Your task to perform on an android device: add a label to a message in the gmail app Image 0: 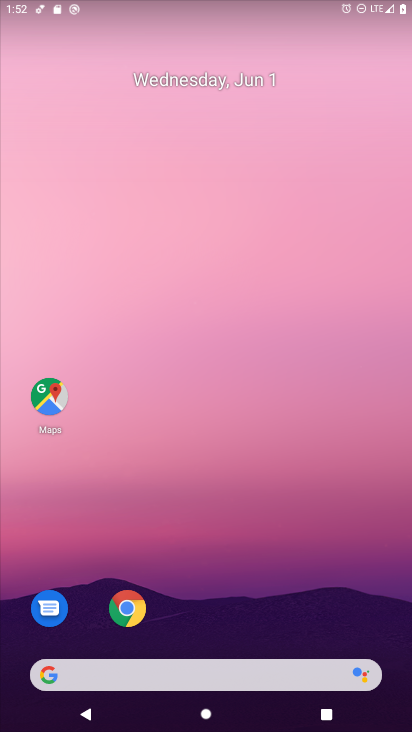
Step 0: drag from (179, 644) to (217, 152)
Your task to perform on an android device: add a label to a message in the gmail app Image 1: 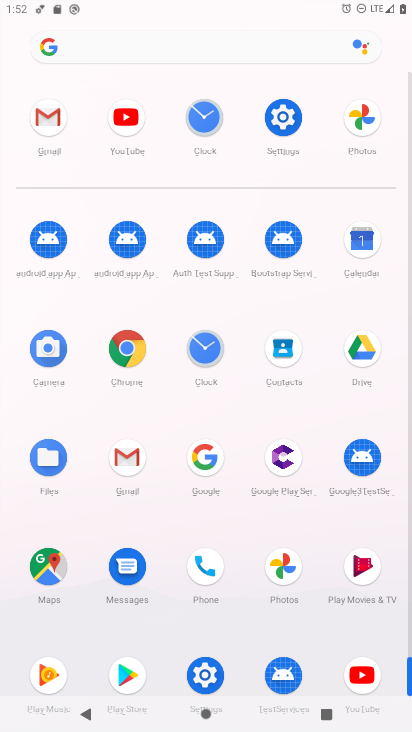
Step 1: click (113, 457)
Your task to perform on an android device: add a label to a message in the gmail app Image 2: 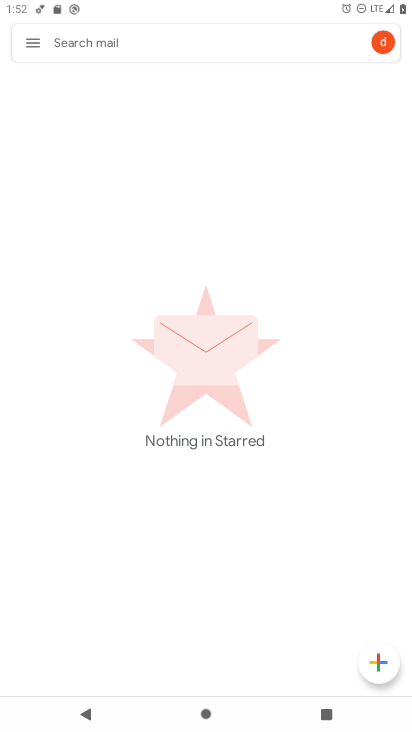
Step 2: press home button
Your task to perform on an android device: add a label to a message in the gmail app Image 3: 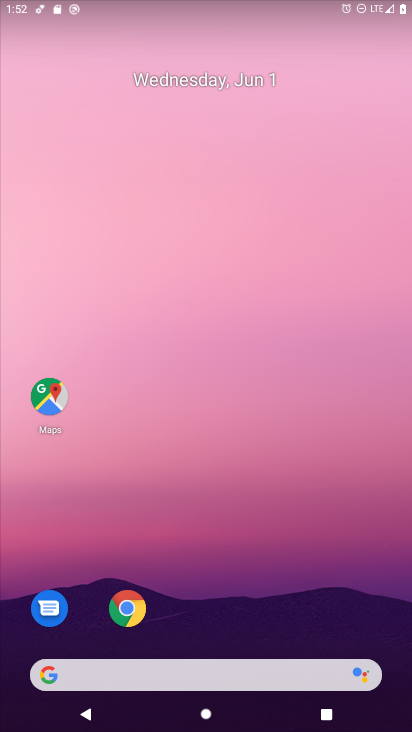
Step 3: drag from (206, 630) to (190, 87)
Your task to perform on an android device: add a label to a message in the gmail app Image 4: 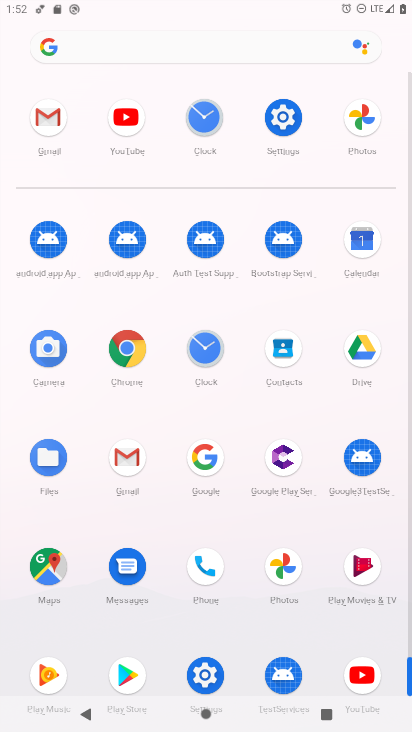
Step 4: click (43, 124)
Your task to perform on an android device: add a label to a message in the gmail app Image 5: 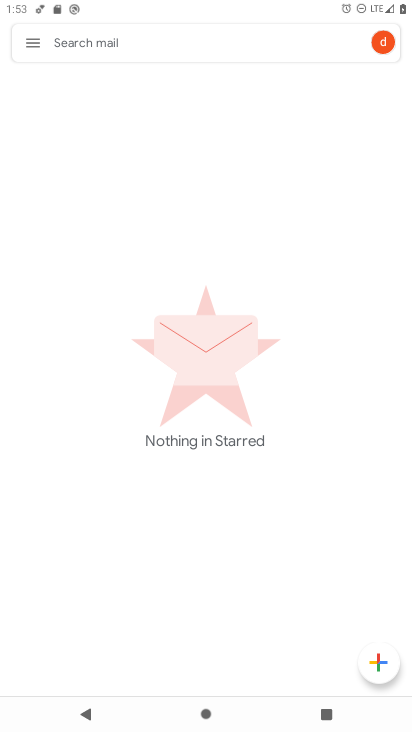
Step 5: click (30, 44)
Your task to perform on an android device: add a label to a message in the gmail app Image 6: 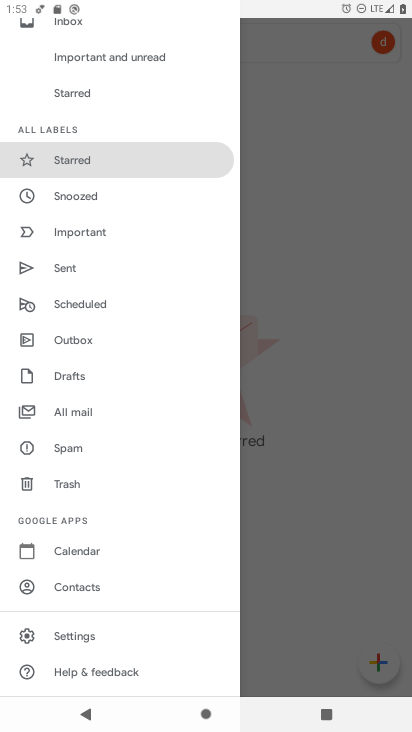
Step 6: click (92, 415)
Your task to perform on an android device: add a label to a message in the gmail app Image 7: 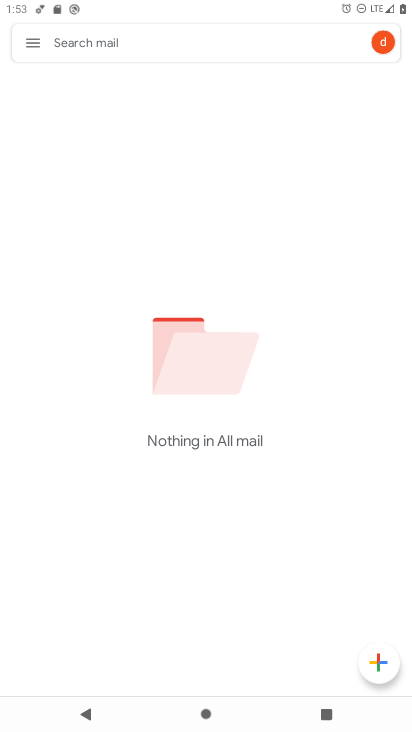
Step 7: task complete